Your task to perform on an android device: uninstall "Google Find My Device" Image 0: 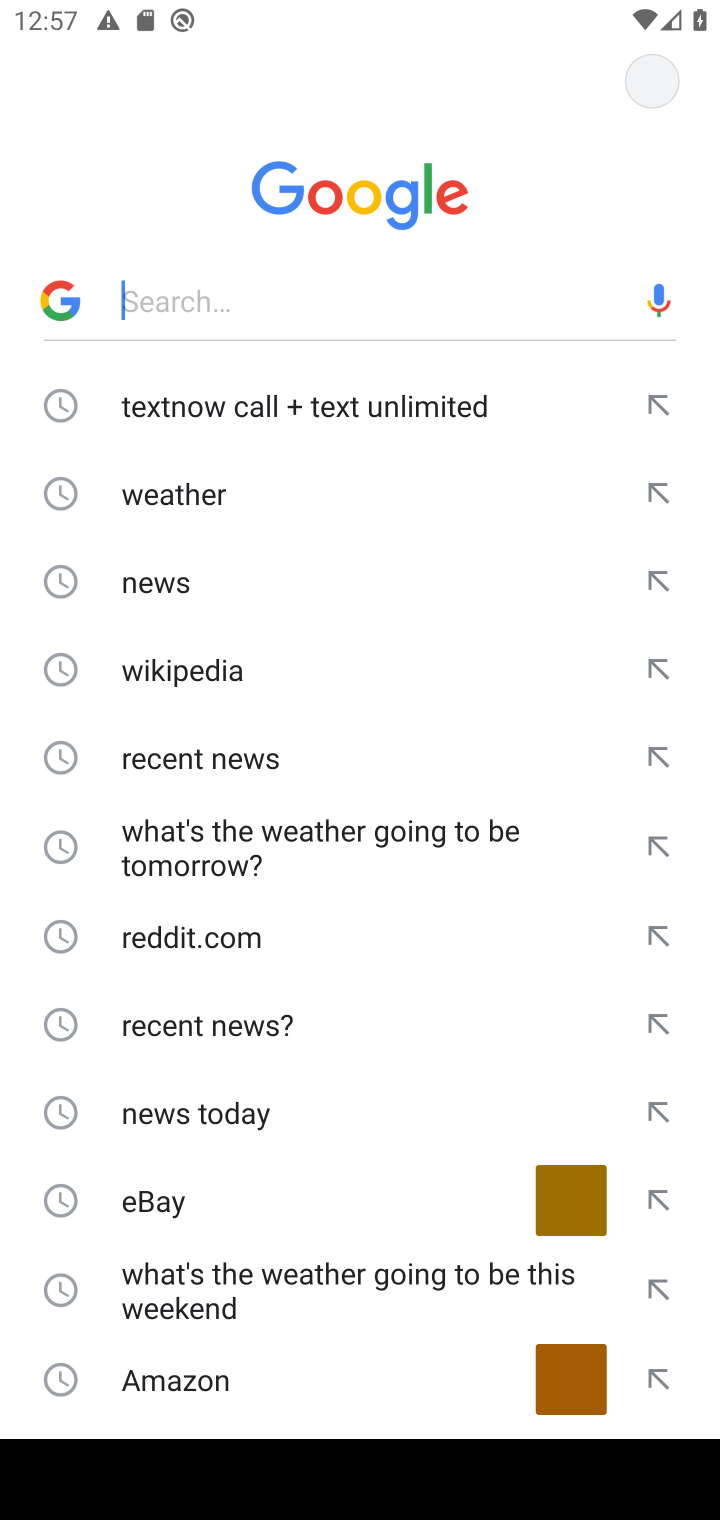
Step 0: press home button
Your task to perform on an android device: uninstall "Google Find My Device" Image 1: 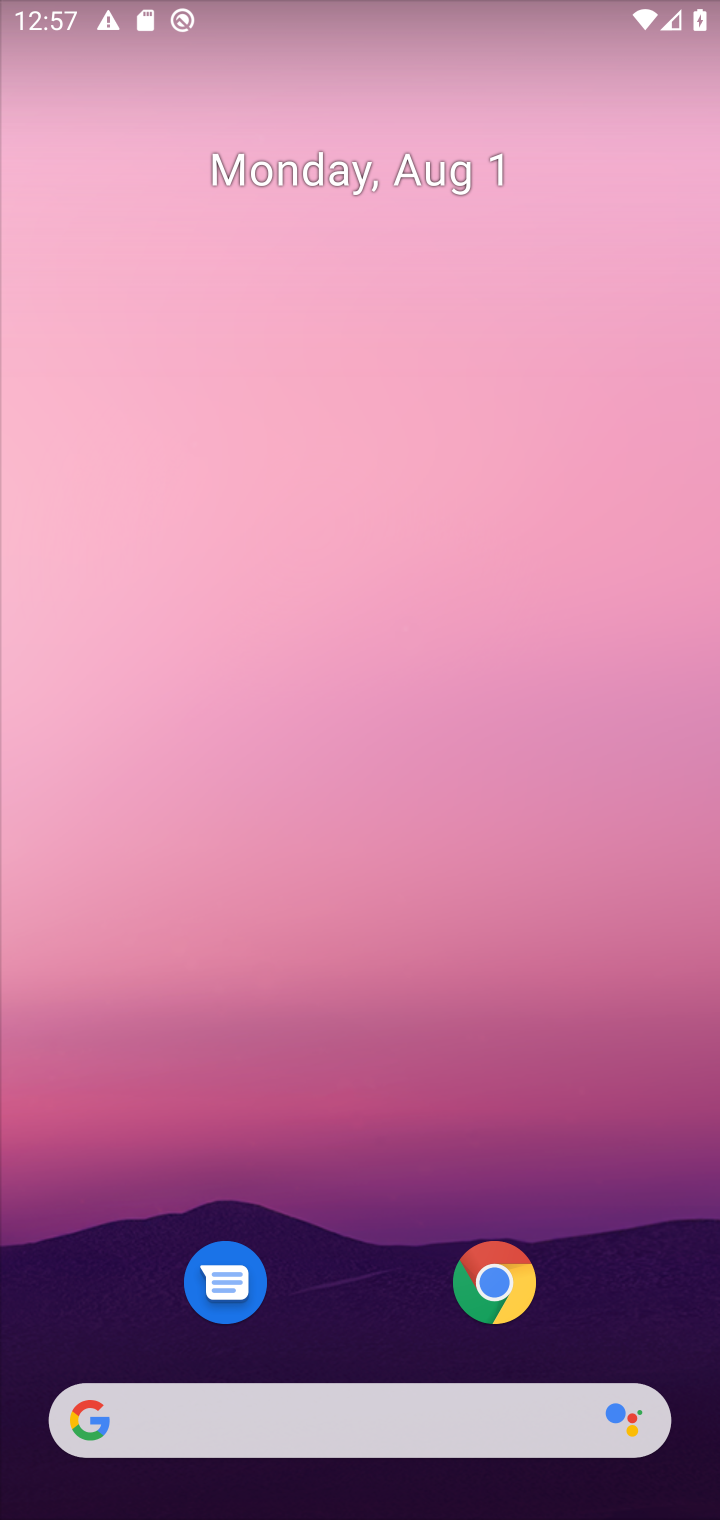
Step 1: drag from (335, 1344) to (325, 84)
Your task to perform on an android device: uninstall "Google Find My Device" Image 2: 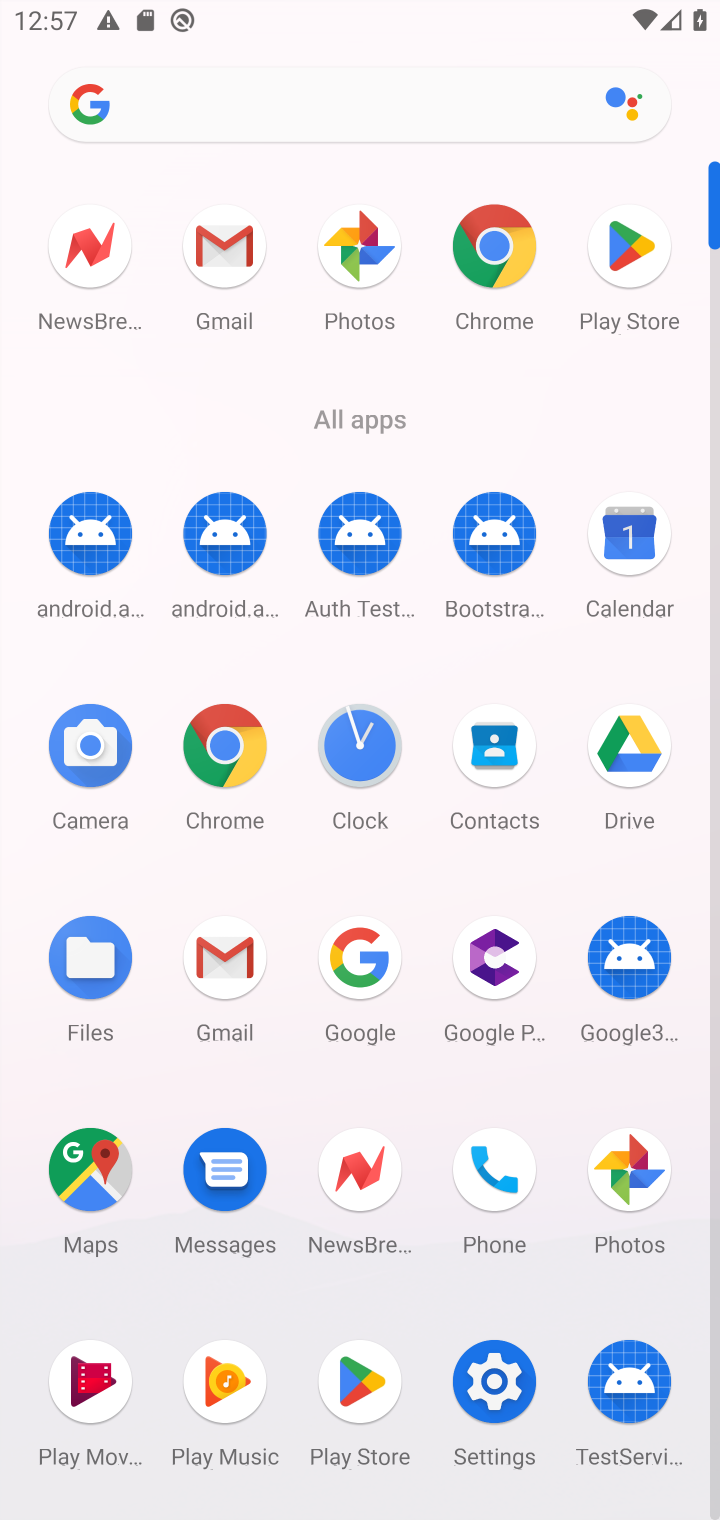
Step 2: click (635, 228)
Your task to perform on an android device: uninstall "Google Find My Device" Image 3: 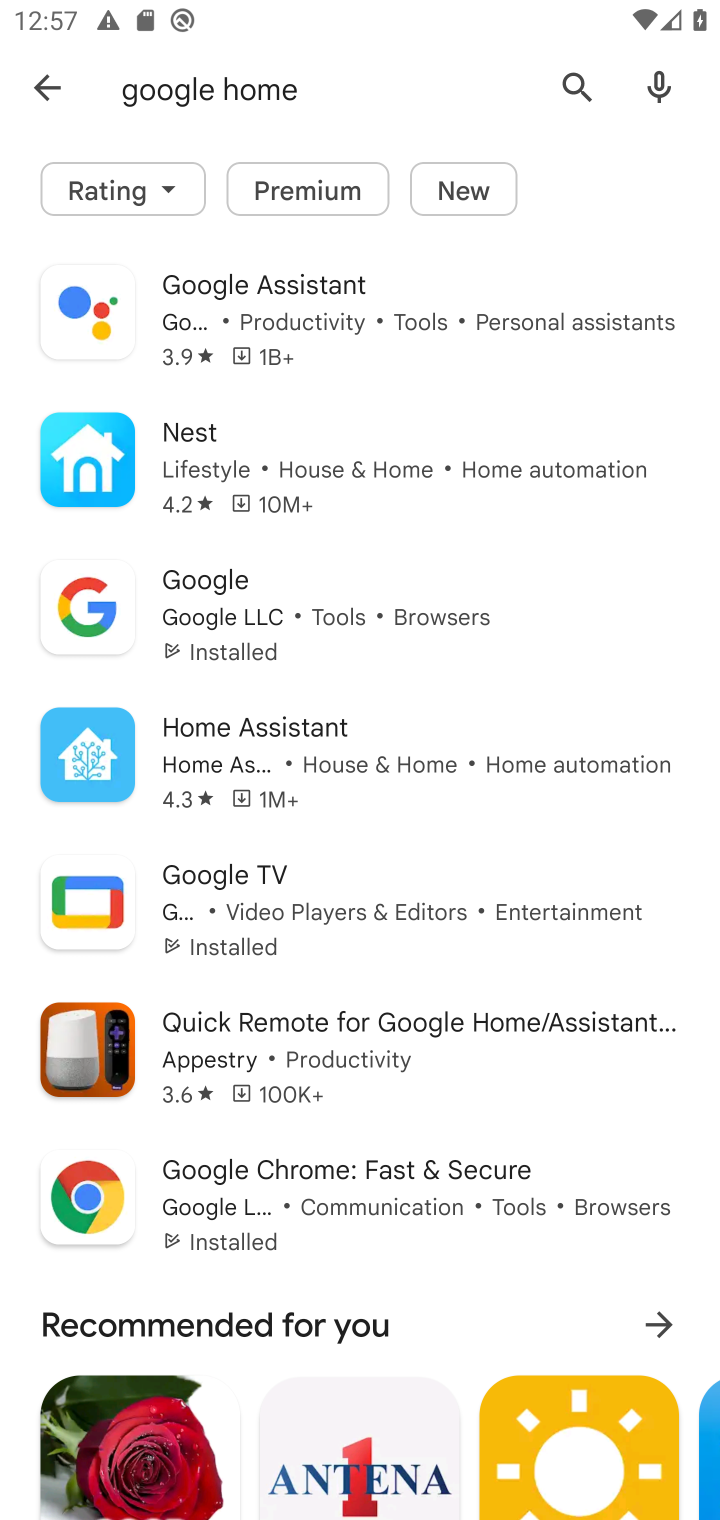
Step 3: click (60, 88)
Your task to perform on an android device: uninstall "Google Find My Device" Image 4: 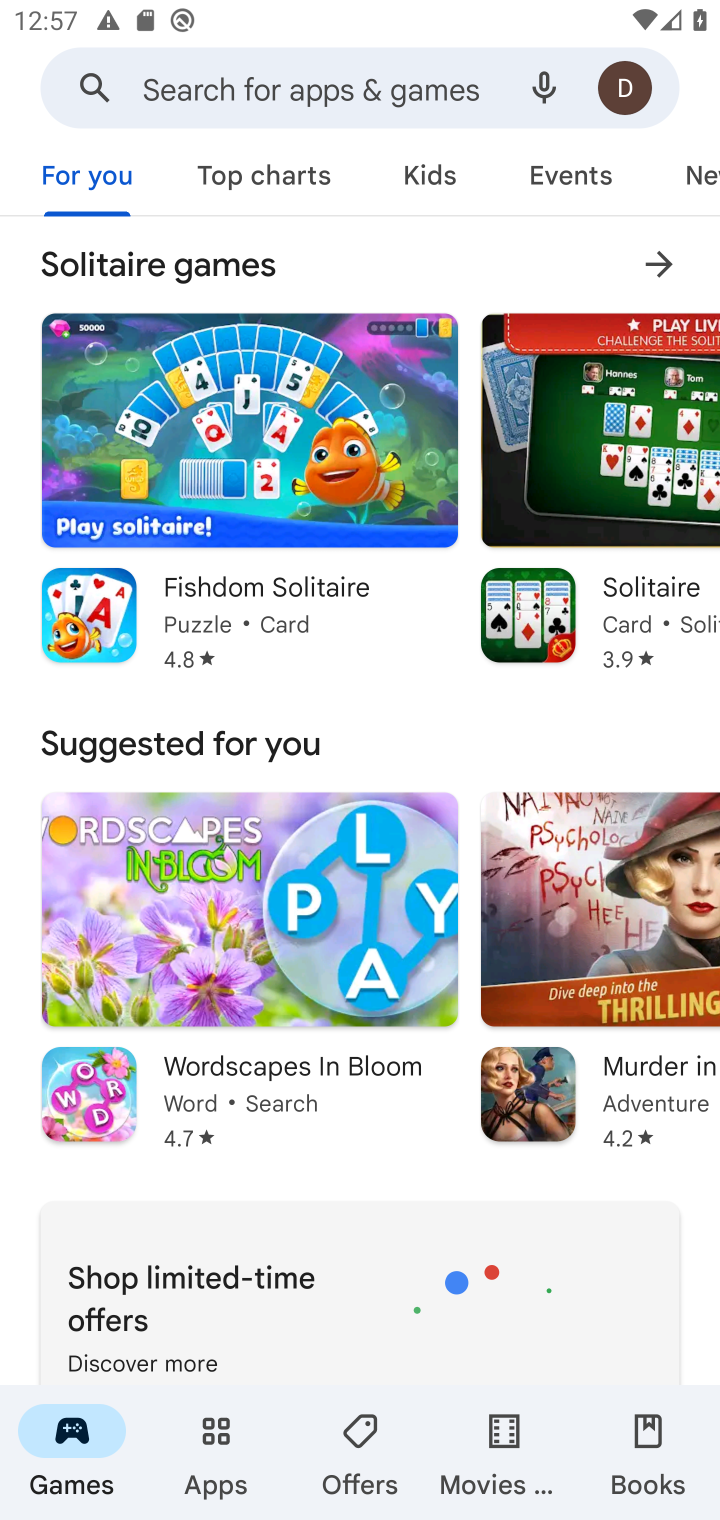
Step 4: click (253, 91)
Your task to perform on an android device: uninstall "Google Find My Device" Image 5: 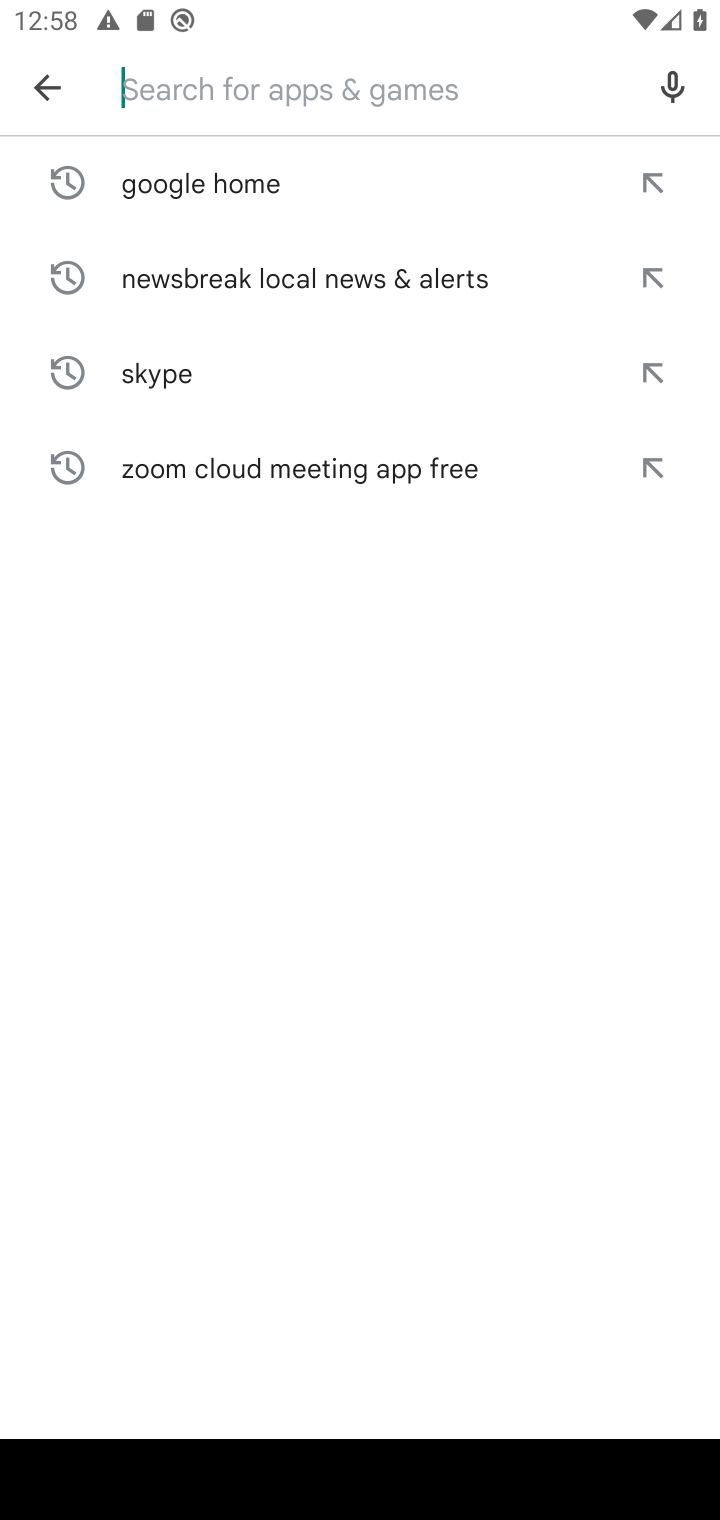
Step 5: type "Google Find My Device"
Your task to perform on an android device: uninstall "Google Find My Device" Image 6: 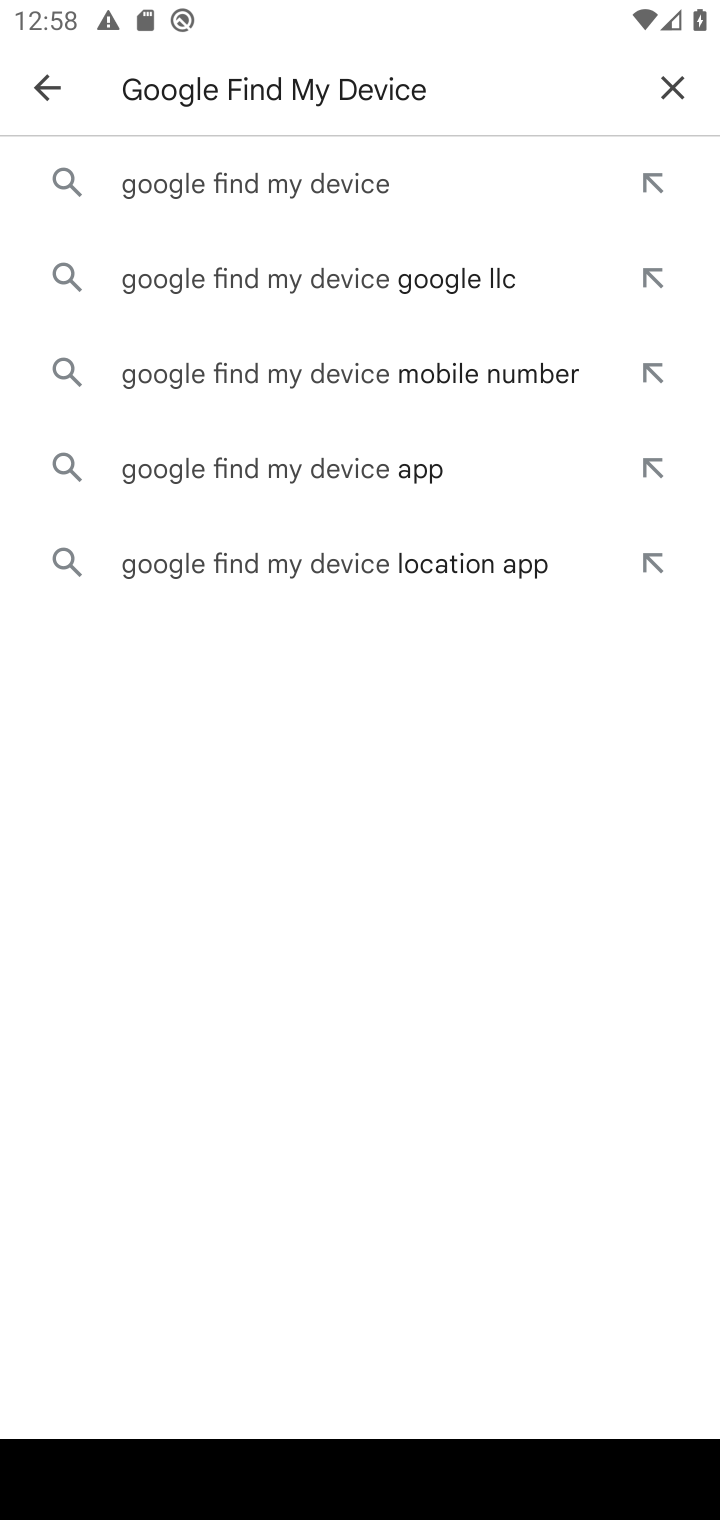
Step 6: click (376, 188)
Your task to perform on an android device: uninstall "Google Find My Device" Image 7: 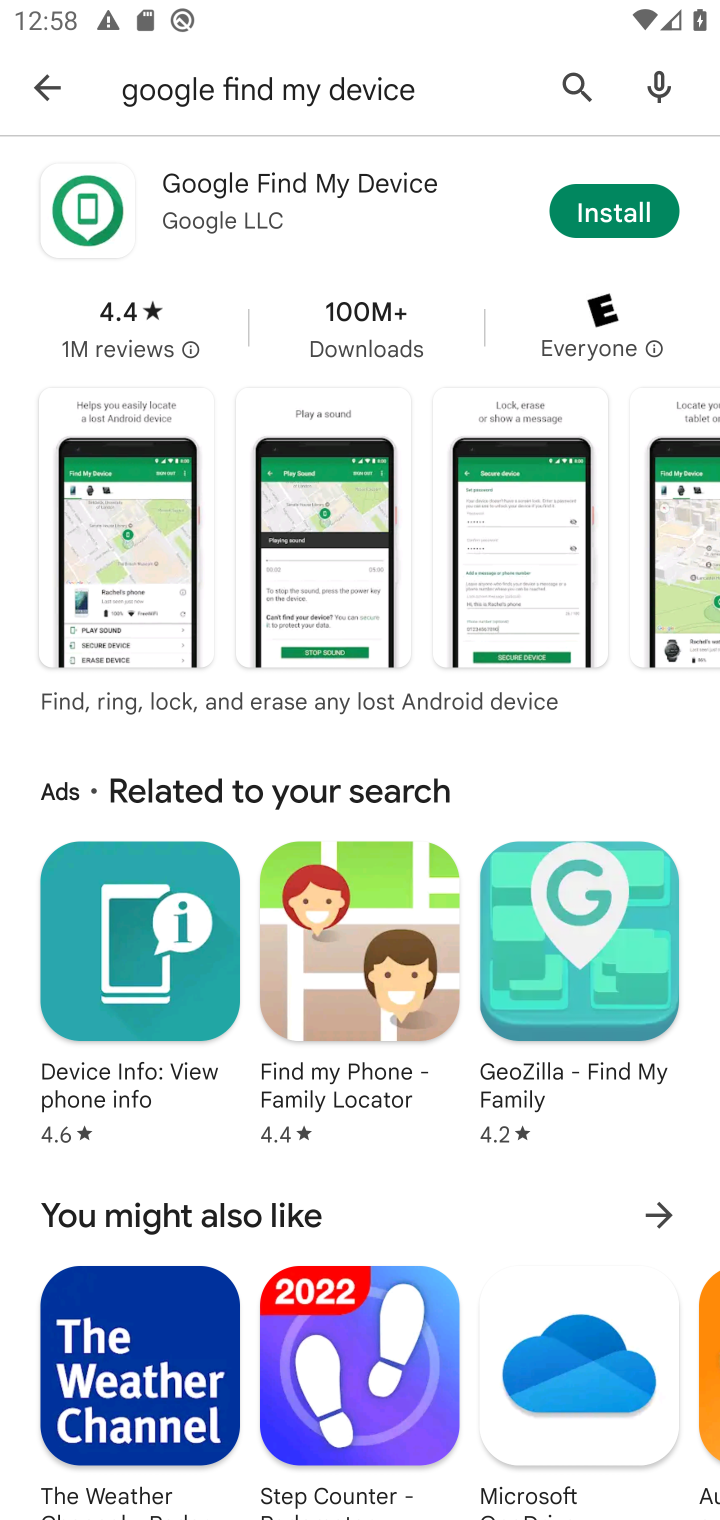
Step 7: click (313, 200)
Your task to perform on an android device: uninstall "Google Find My Device" Image 8: 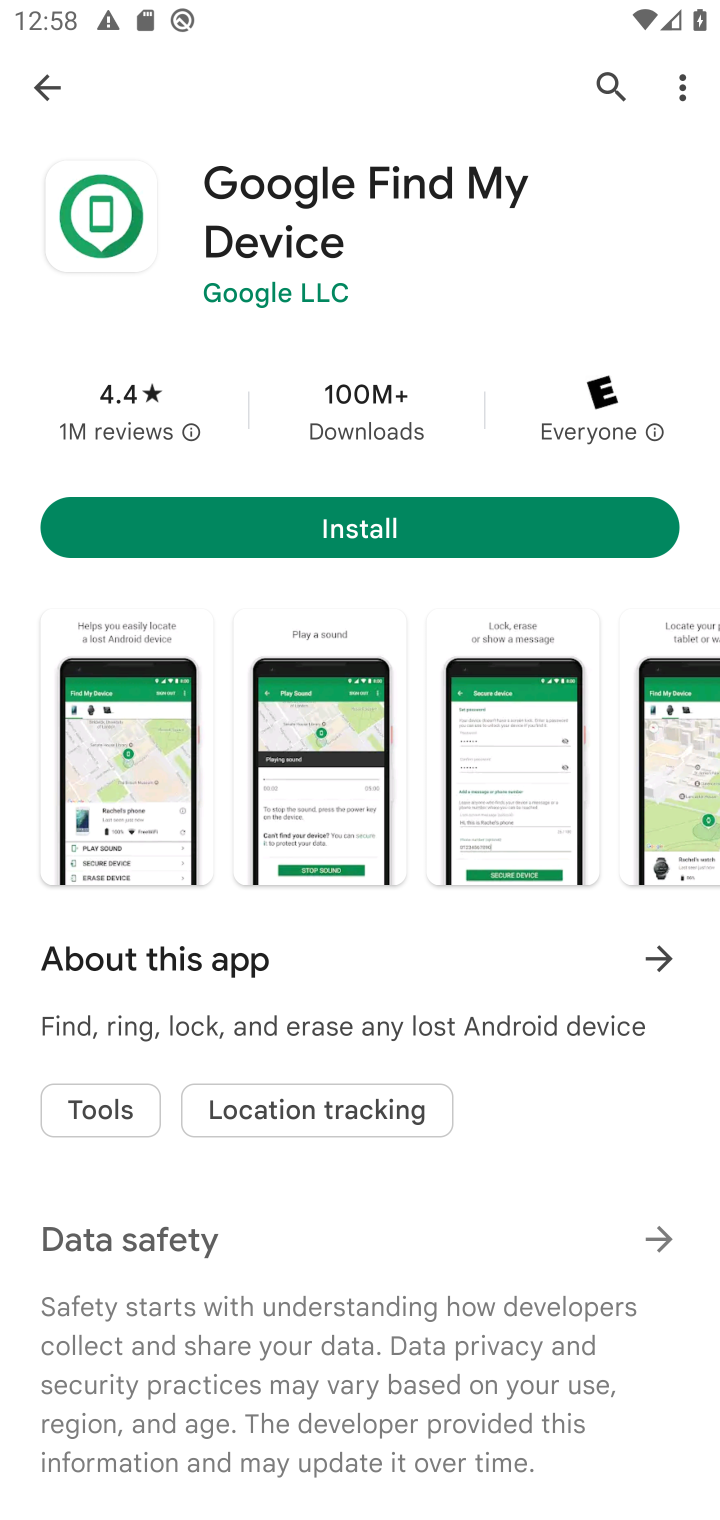
Step 8: task complete